Your task to perform on an android device: Go to Google Image 0: 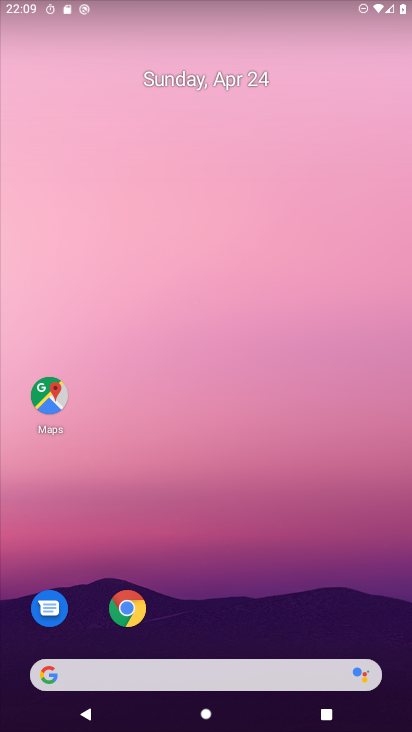
Step 0: drag from (200, 606) to (206, 92)
Your task to perform on an android device: Go to Google Image 1: 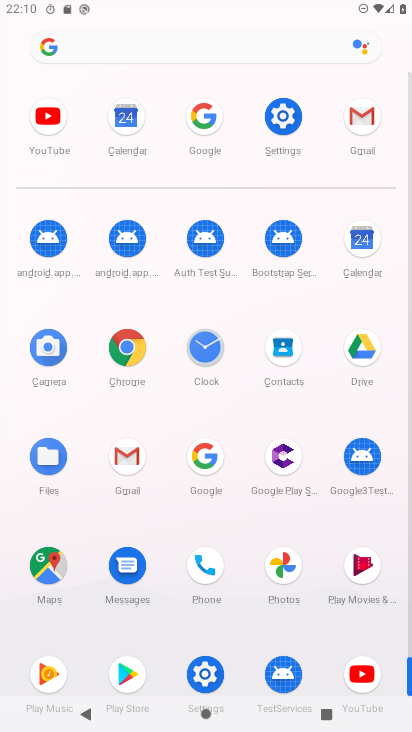
Step 1: click (203, 459)
Your task to perform on an android device: Go to Google Image 2: 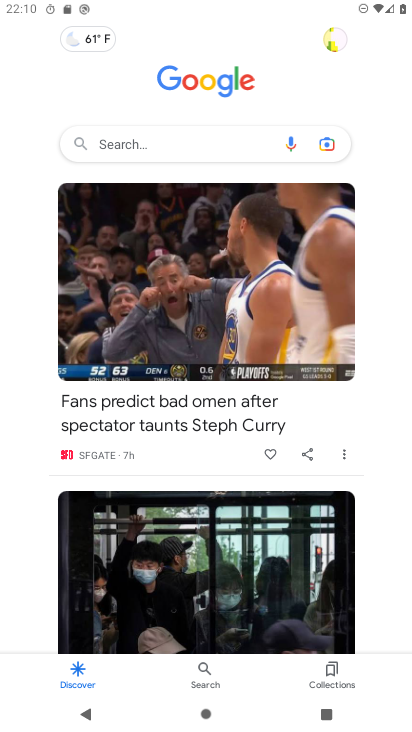
Step 2: task complete